Your task to perform on an android device: empty trash in the gmail app Image 0: 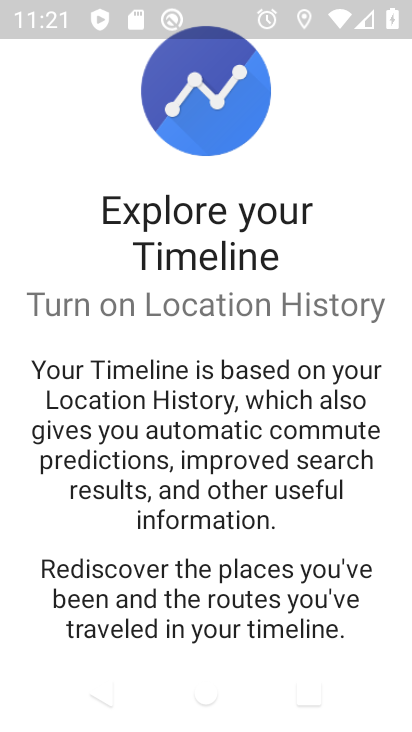
Step 0: press home button
Your task to perform on an android device: empty trash in the gmail app Image 1: 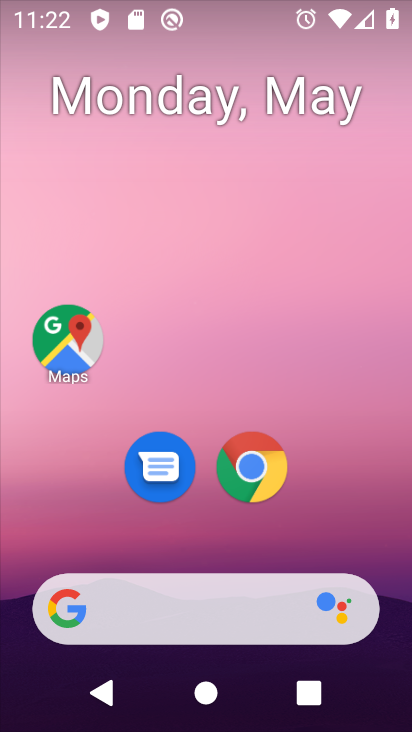
Step 1: drag from (351, 517) to (299, 52)
Your task to perform on an android device: empty trash in the gmail app Image 2: 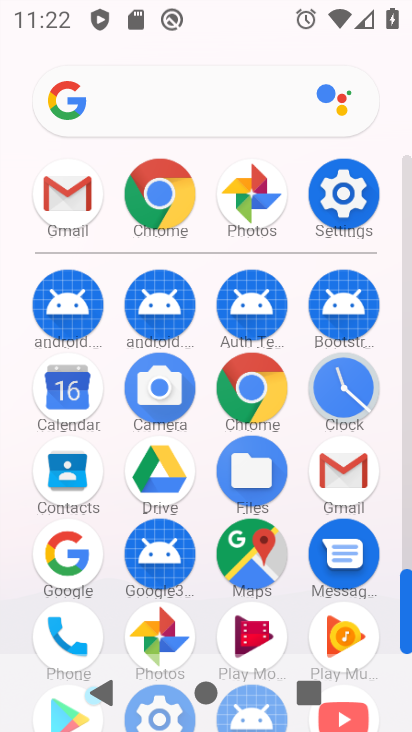
Step 2: click (80, 224)
Your task to perform on an android device: empty trash in the gmail app Image 3: 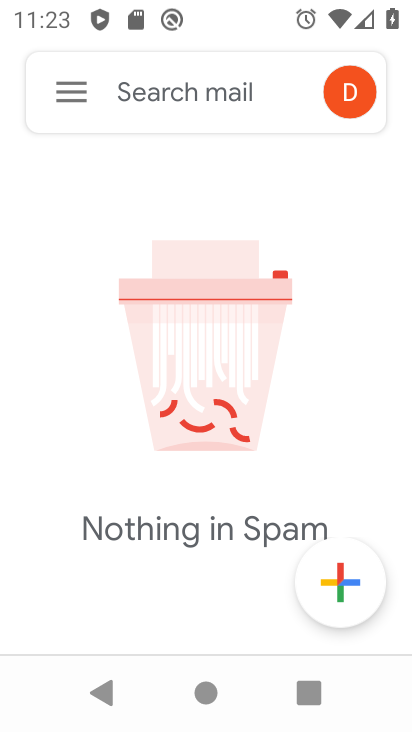
Step 3: click (88, 108)
Your task to perform on an android device: empty trash in the gmail app Image 4: 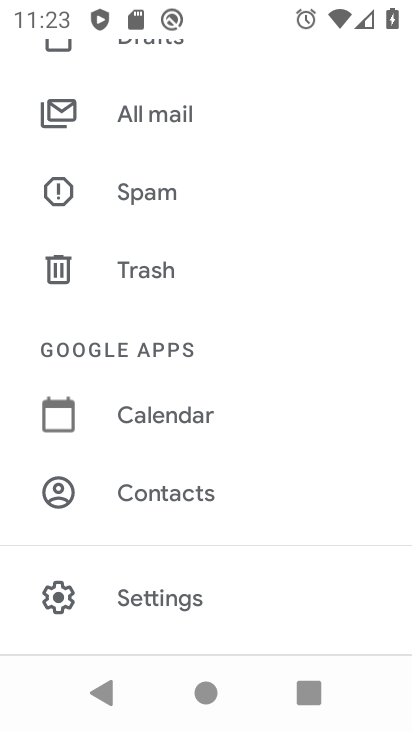
Step 4: click (145, 266)
Your task to perform on an android device: empty trash in the gmail app Image 5: 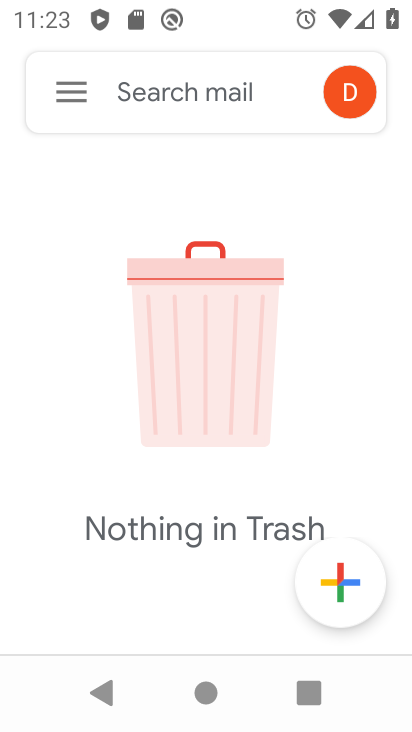
Step 5: task complete